Your task to perform on an android device: toggle translation in the chrome app Image 0: 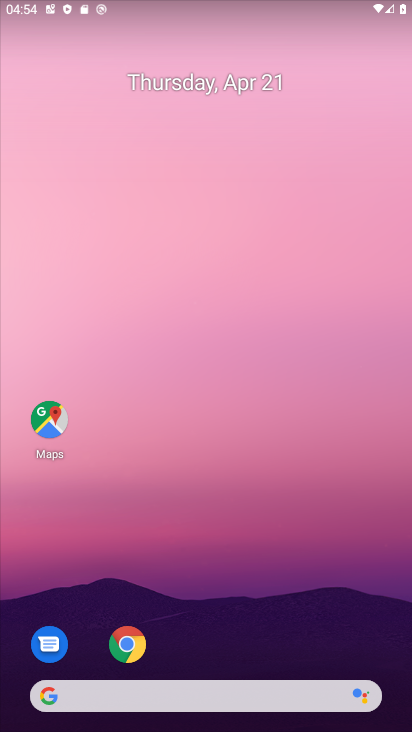
Step 0: click (132, 641)
Your task to perform on an android device: toggle translation in the chrome app Image 1: 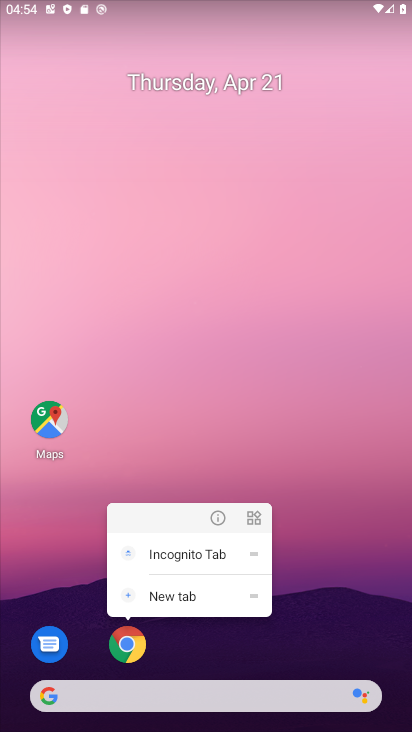
Step 1: click (294, 648)
Your task to perform on an android device: toggle translation in the chrome app Image 2: 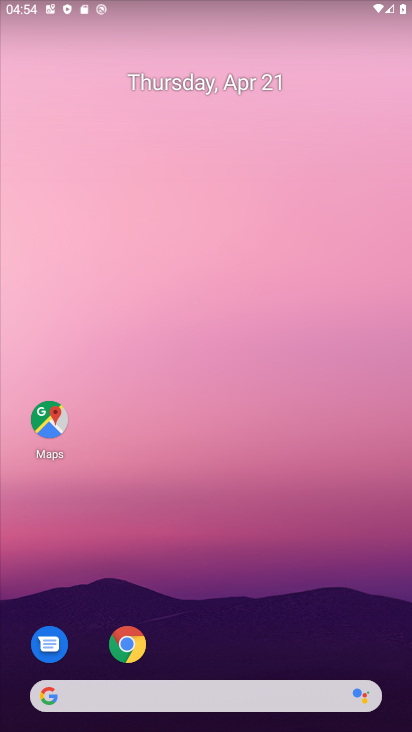
Step 2: drag from (295, 640) to (333, 214)
Your task to perform on an android device: toggle translation in the chrome app Image 3: 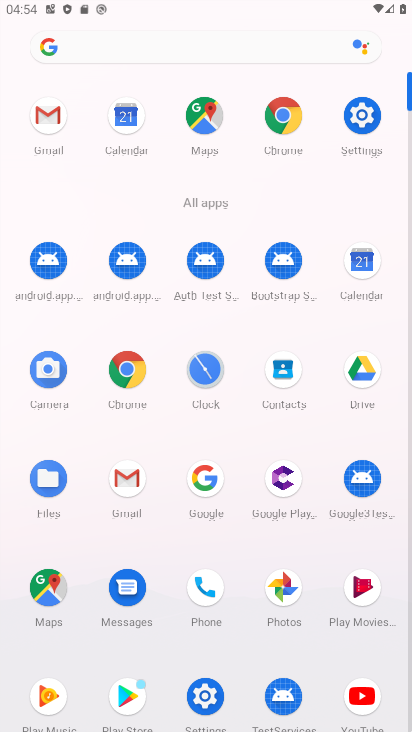
Step 3: click (124, 370)
Your task to perform on an android device: toggle translation in the chrome app Image 4: 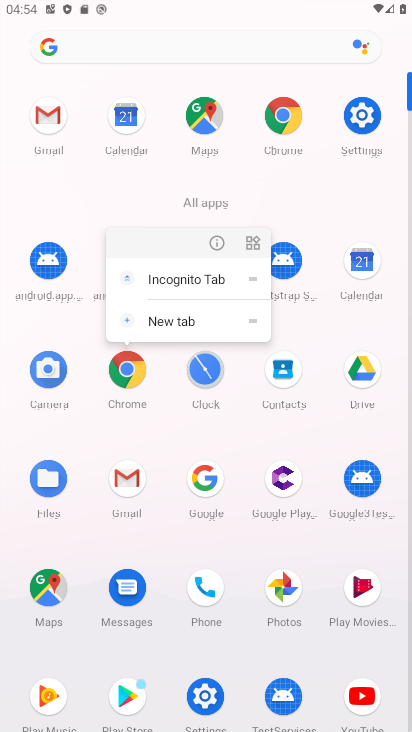
Step 4: click (125, 370)
Your task to perform on an android device: toggle translation in the chrome app Image 5: 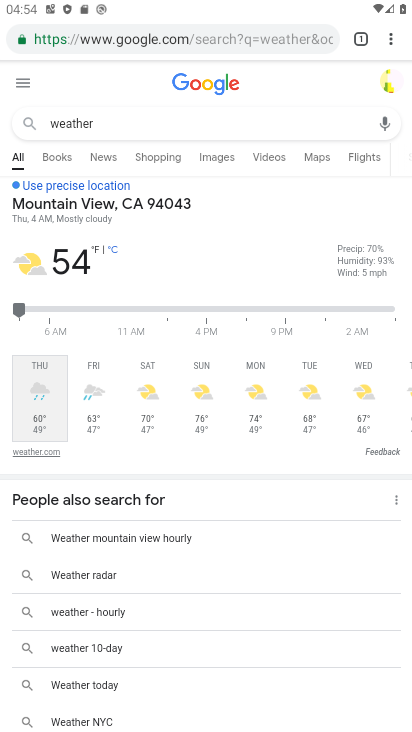
Step 5: drag from (390, 37) to (270, 430)
Your task to perform on an android device: toggle translation in the chrome app Image 6: 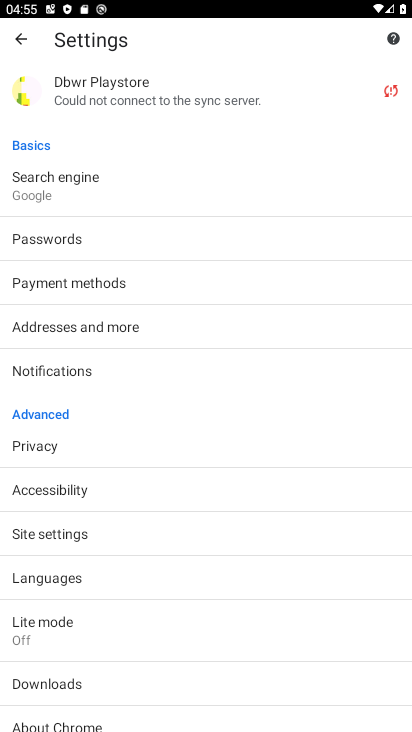
Step 6: click (66, 581)
Your task to perform on an android device: toggle translation in the chrome app Image 7: 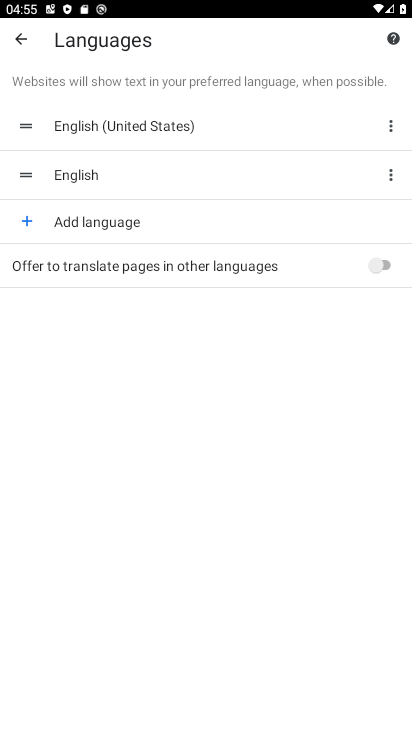
Step 7: click (147, 267)
Your task to perform on an android device: toggle translation in the chrome app Image 8: 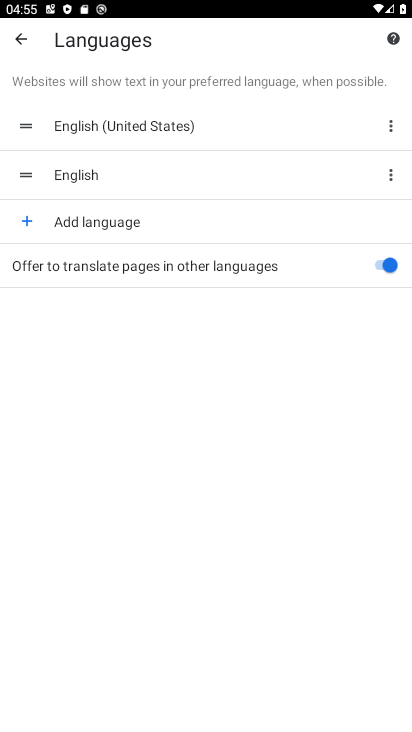
Step 8: task complete